Your task to perform on an android device: What's on my calendar today? Image 0: 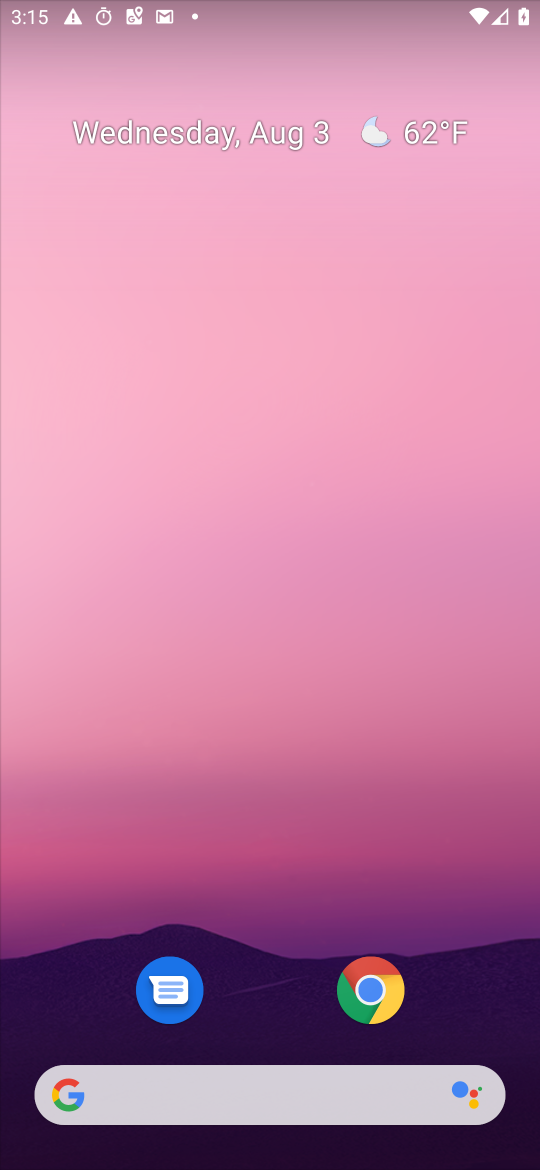
Step 0: drag from (213, 1016) to (215, 191)
Your task to perform on an android device: What's on my calendar today? Image 1: 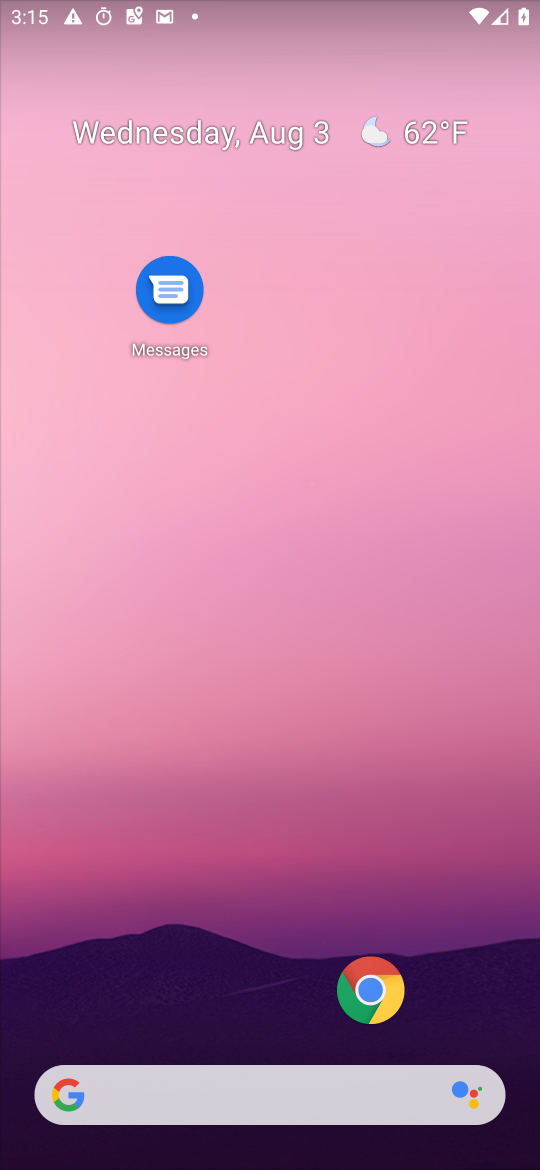
Step 1: drag from (216, 1088) to (183, 239)
Your task to perform on an android device: What's on my calendar today? Image 2: 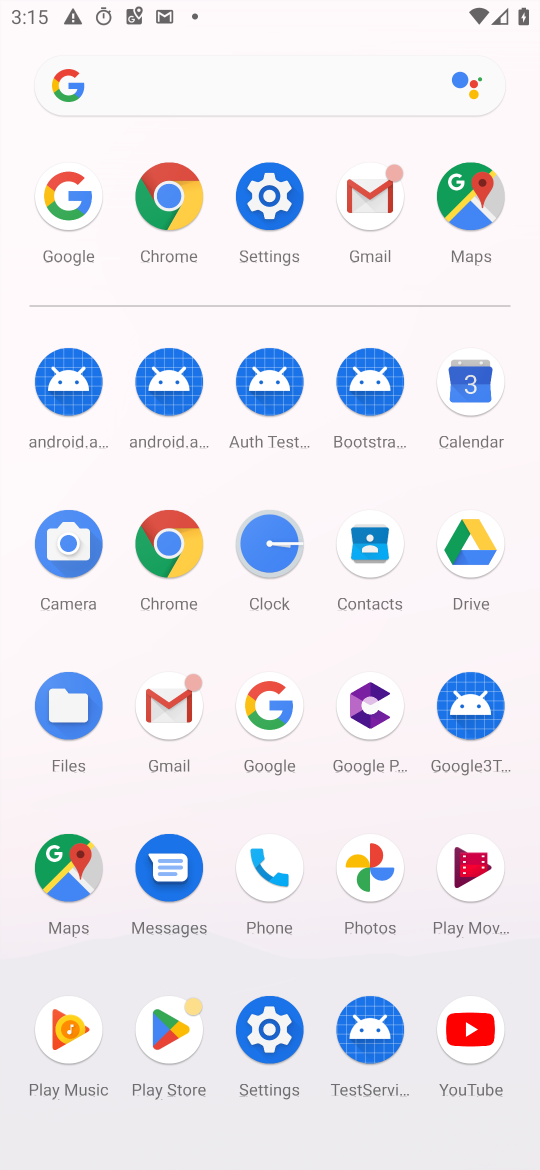
Step 2: click (464, 418)
Your task to perform on an android device: What's on my calendar today? Image 3: 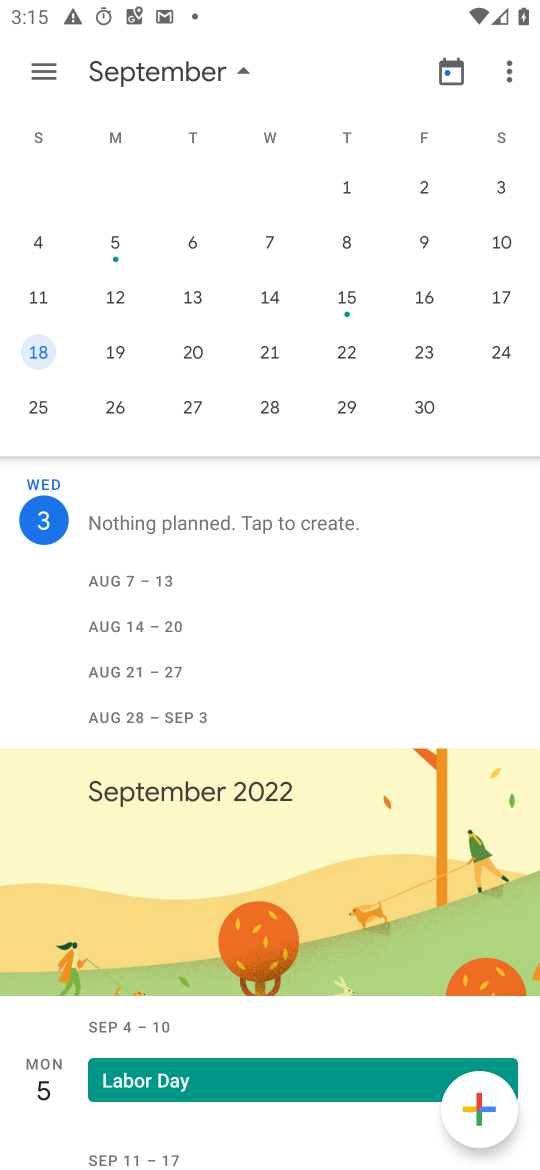
Step 3: drag from (33, 223) to (530, 231)
Your task to perform on an android device: What's on my calendar today? Image 4: 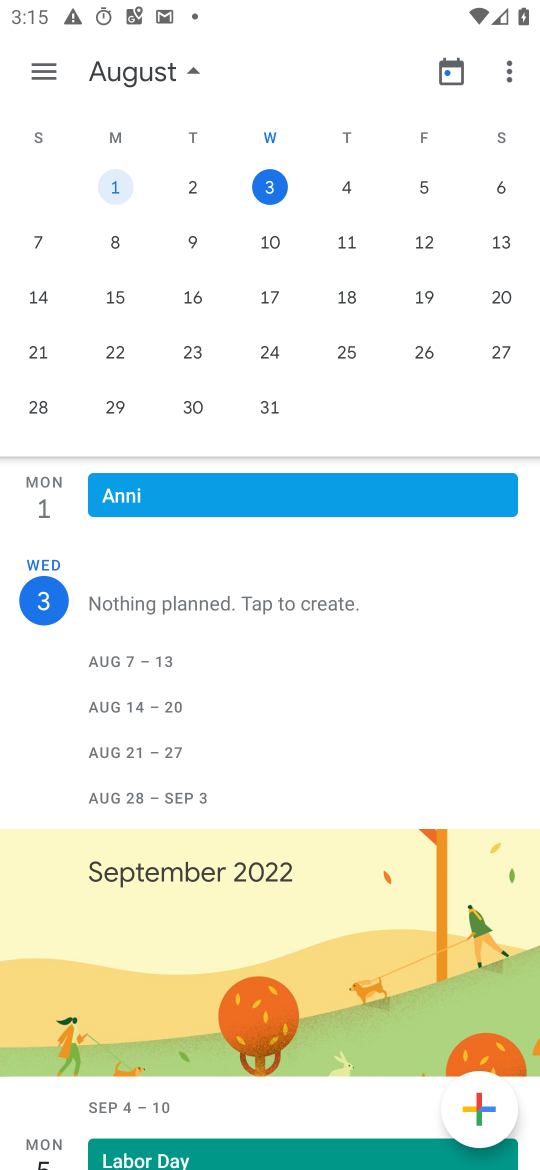
Step 4: drag from (116, 285) to (505, 283)
Your task to perform on an android device: What's on my calendar today? Image 5: 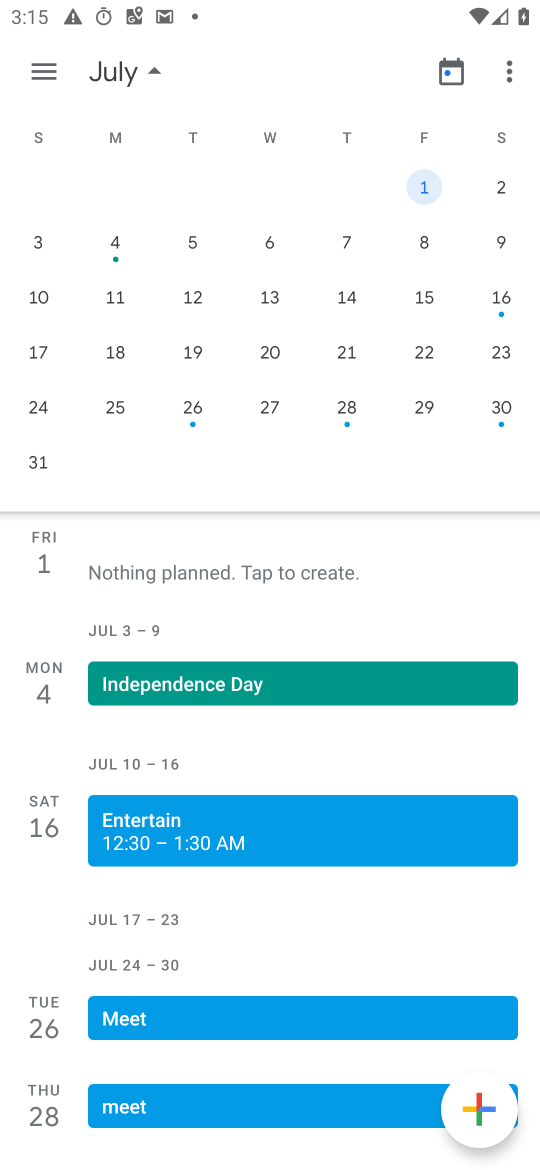
Step 5: drag from (505, 339) to (3, 317)
Your task to perform on an android device: What's on my calendar today? Image 6: 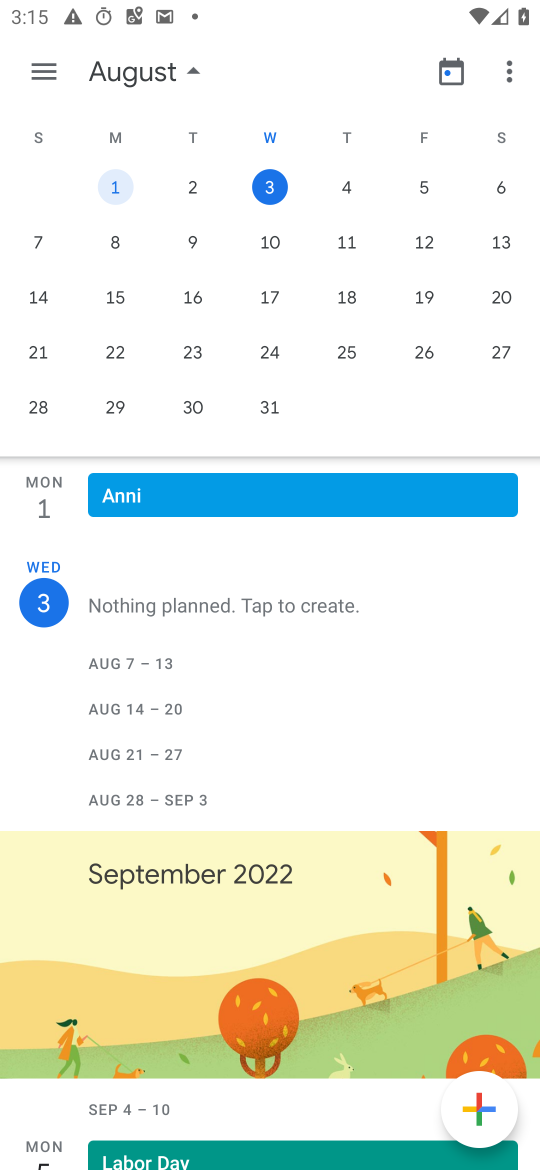
Step 6: click (278, 185)
Your task to perform on an android device: What's on my calendar today? Image 7: 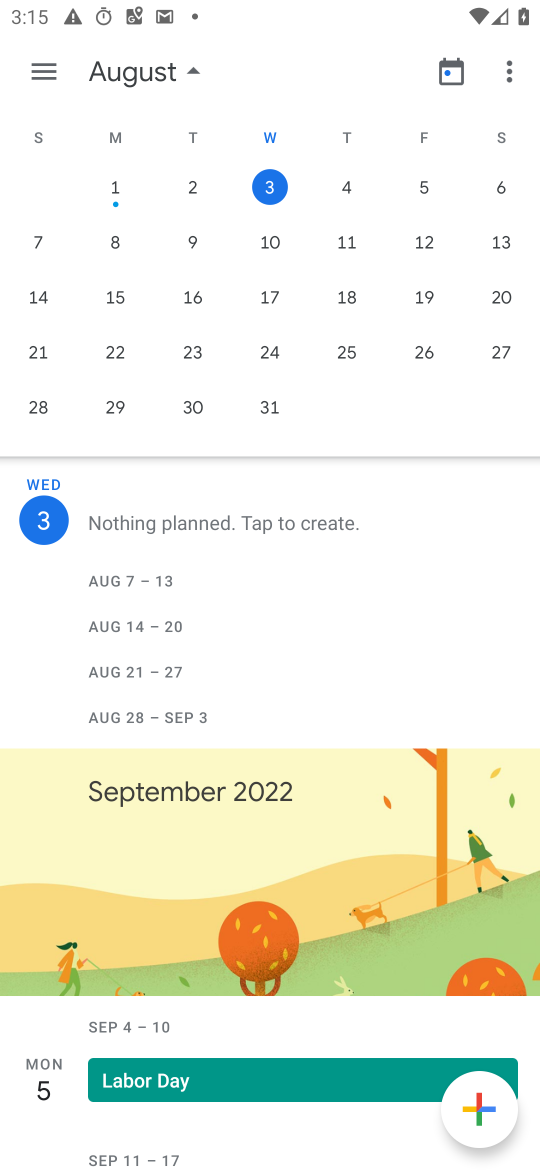
Step 7: task complete